Your task to perform on an android device: Set the phone to "Do not disturb". Image 0: 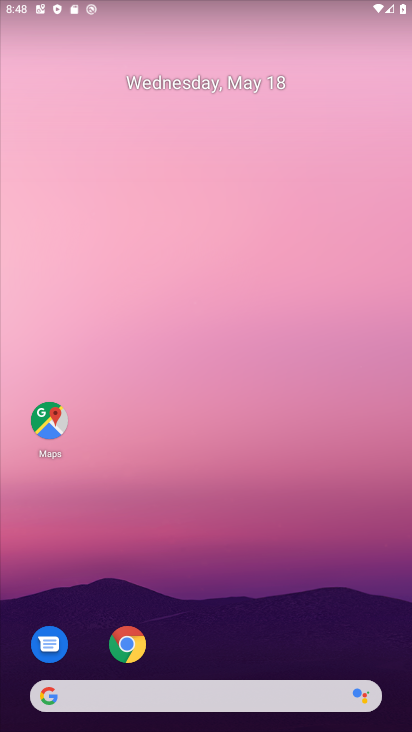
Step 0: click (373, 496)
Your task to perform on an android device: Set the phone to "Do not disturb". Image 1: 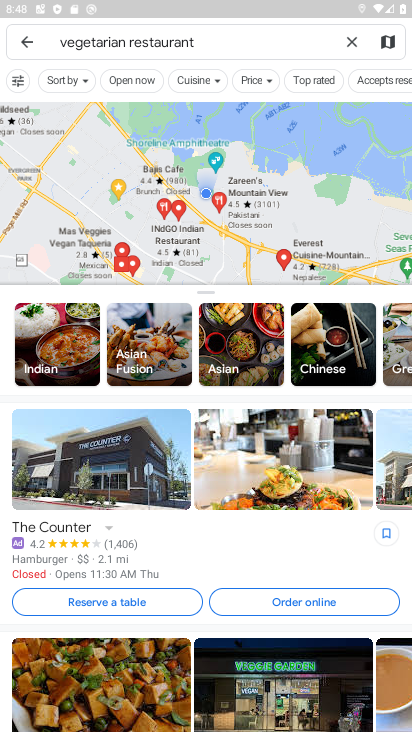
Step 1: press home button
Your task to perform on an android device: Set the phone to "Do not disturb". Image 2: 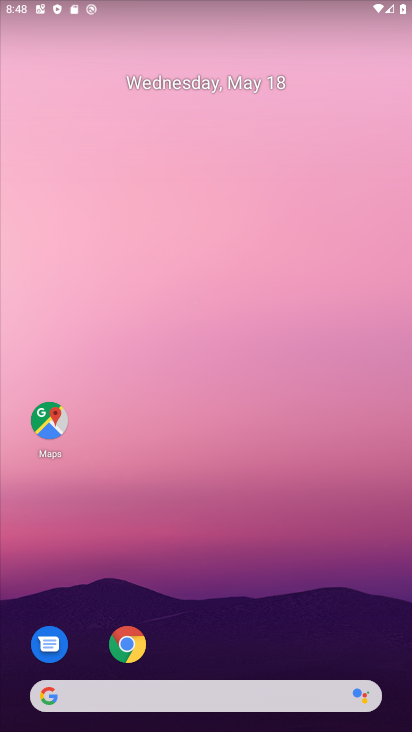
Step 2: drag from (189, 675) to (301, 41)
Your task to perform on an android device: Set the phone to "Do not disturb". Image 3: 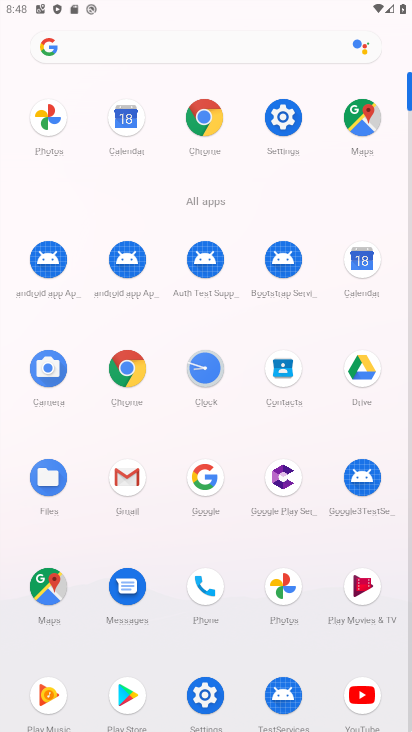
Step 3: click (284, 109)
Your task to perform on an android device: Set the phone to "Do not disturb". Image 4: 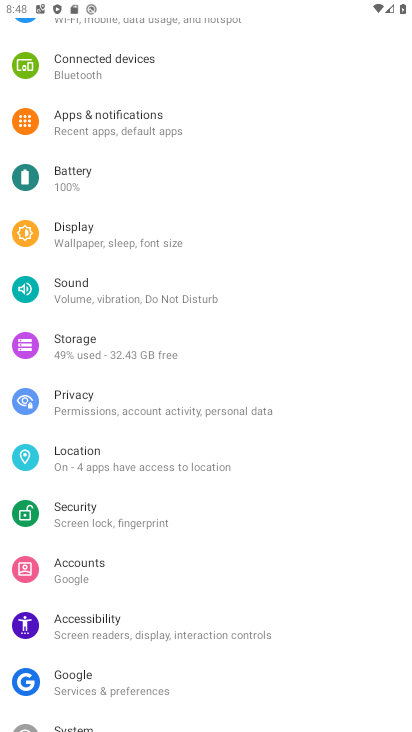
Step 4: click (155, 300)
Your task to perform on an android device: Set the phone to "Do not disturb". Image 5: 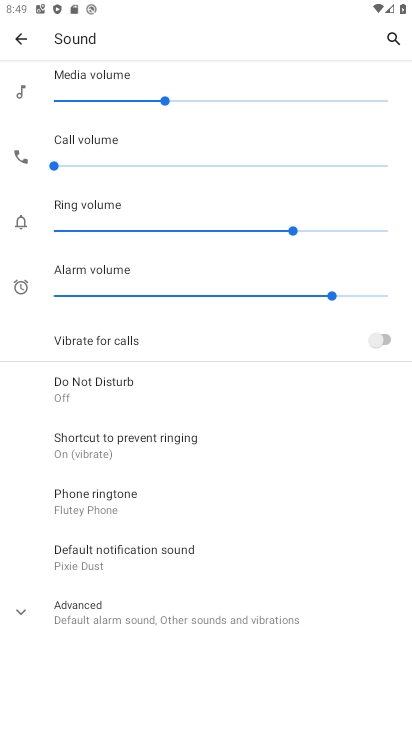
Step 5: click (139, 397)
Your task to perform on an android device: Set the phone to "Do not disturb". Image 6: 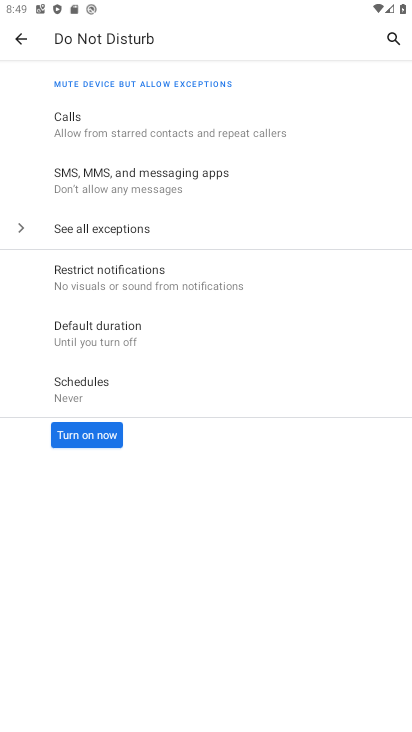
Step 6: click (110, 431)
Your task to perform on an android device: Set the phone to "Do not disturb". Image 7: 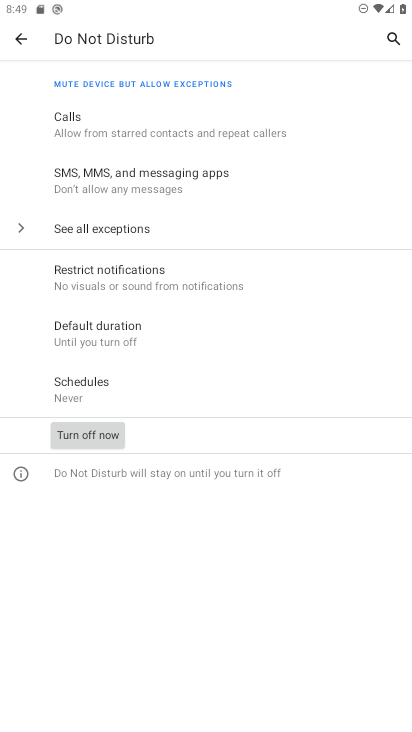
Step 7: task complete